Your task to perform on an android device: change alarm snooze length Image 0: 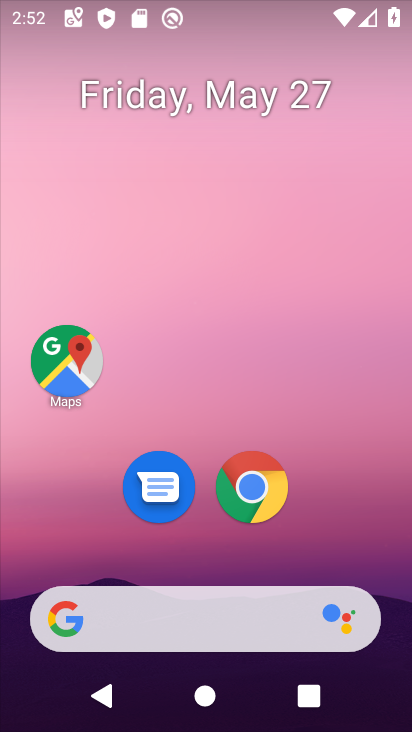
Step 0: drag from (162, 730) to (109, 62)
Your task to perform on an android device: change alarm snooze length Image 1: 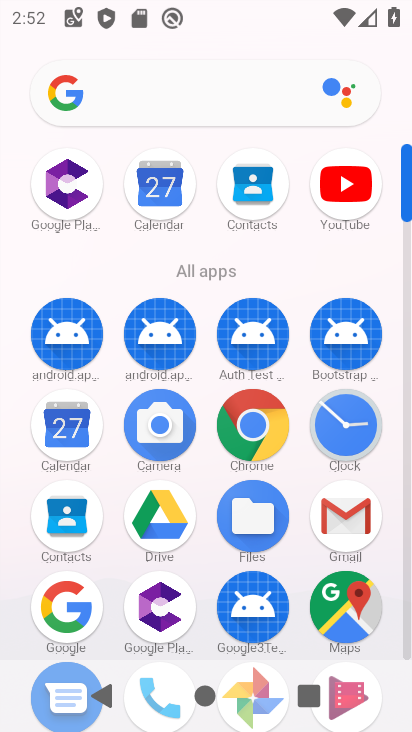
Step 1: click (337, 423)
Your task to perform on an android device: change alarm snooze length Image 2: 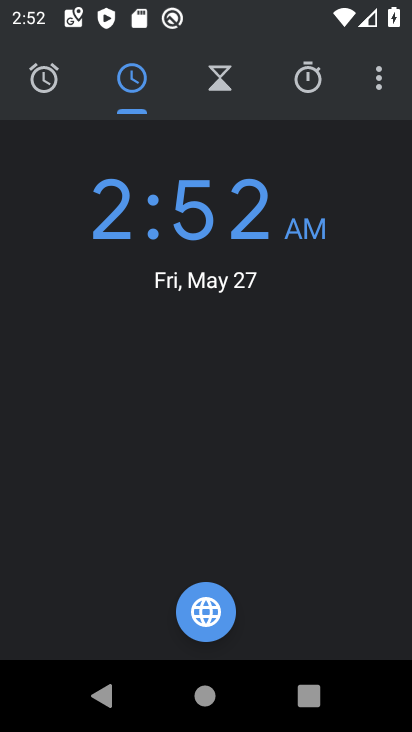
Step 2: click (380, 94)
Your task to perform on an android device: change alarm snooze length Image 3: 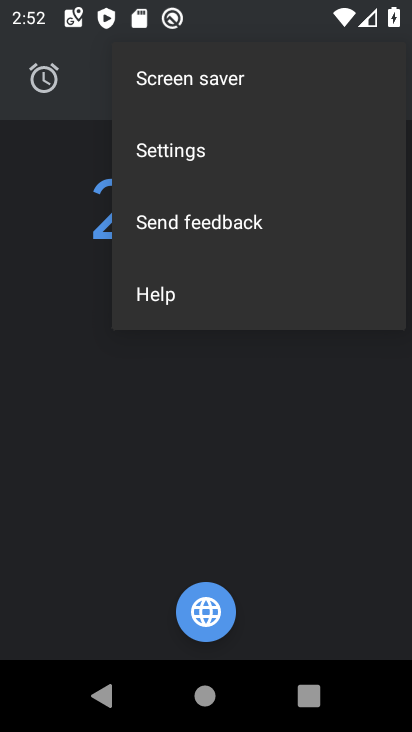
Step 3: click (147, 152)
Your task to perform on an android device: change alarm snooze length Image 4: 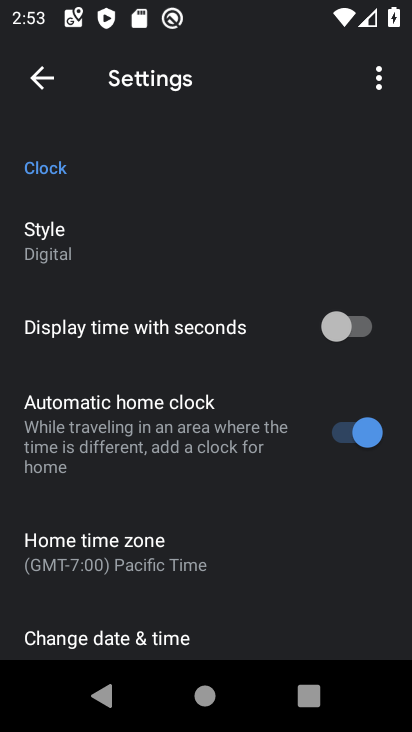
Step 4: drag from (269, 563) to (244, 184)
Your task to perform on an android device: change alarm snooze length Image 5: 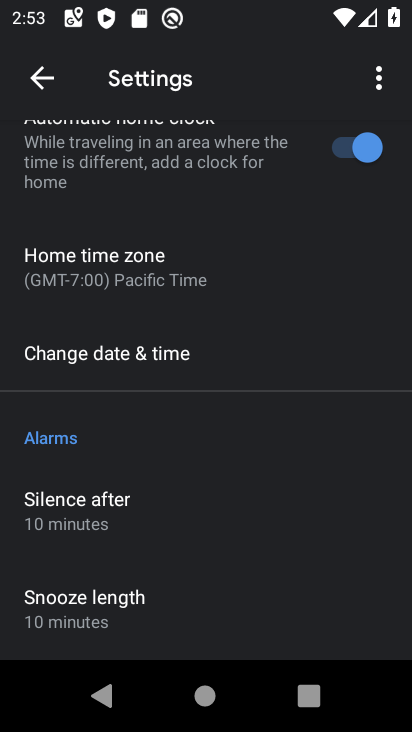
Step 5: click (114, 609)
Your task to perform on an android device: change alarm snooze length Image 6: 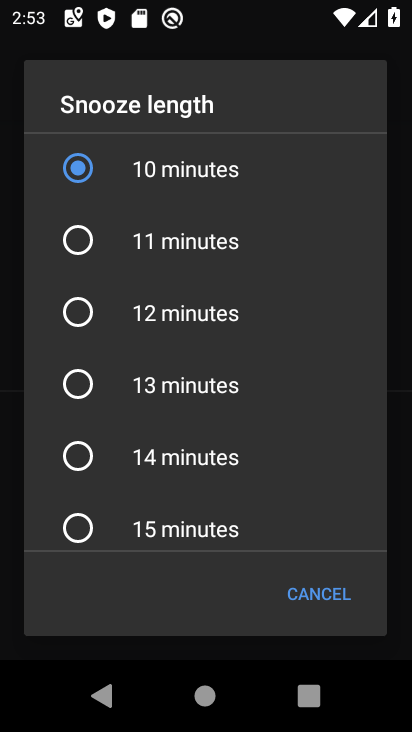
Step 6: click (179, 259)
Your task to perform on an android device: change alarm snooze length Image 7: 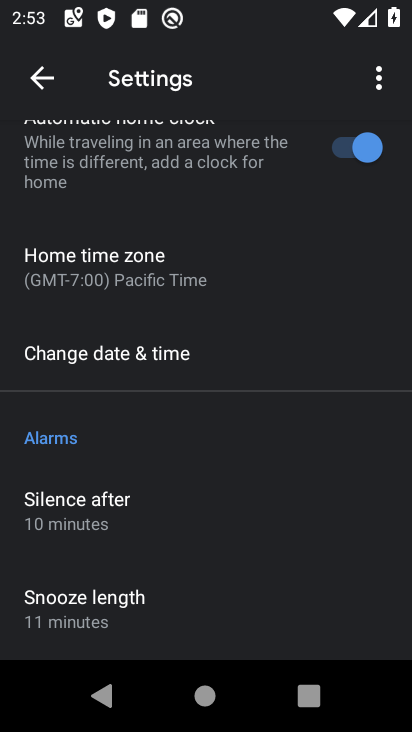
Step 7: task complete